Your task to perform on an android device: Open display settings Image 0: 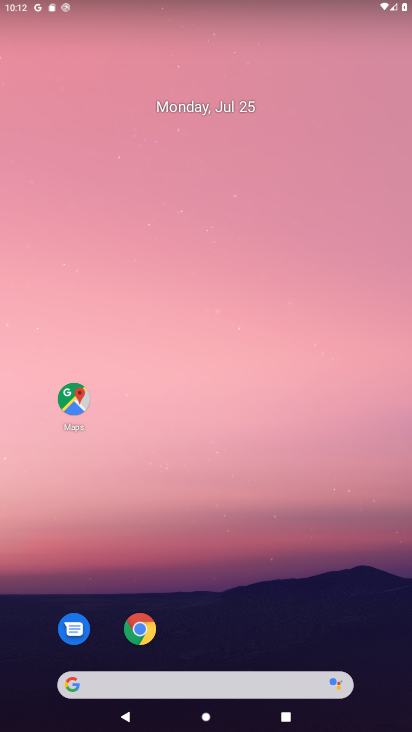
Step 0: drag from (244, 630) to (265, 95)
Your task to perform on an android device: Open display settings Image 1: 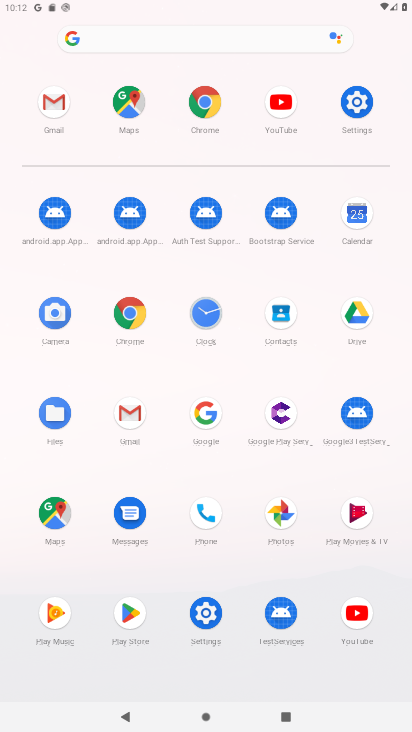
Step 1: click (353, 112)
Your task to perform on an android device: Open display settings Image 2: 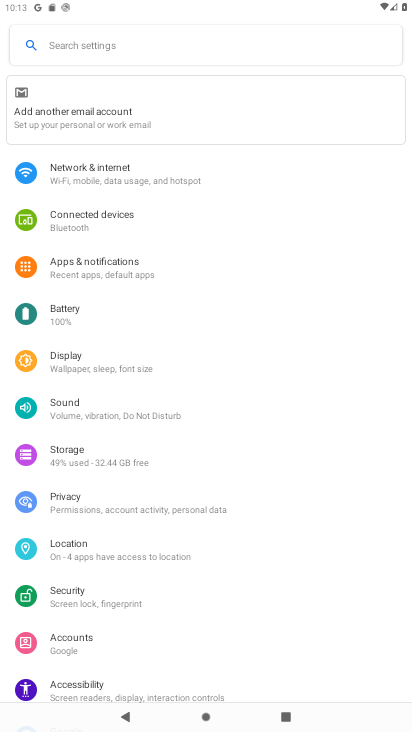
Step 2: click (79, 370)
Your task to perform on an android device: Open display settings Image 3: 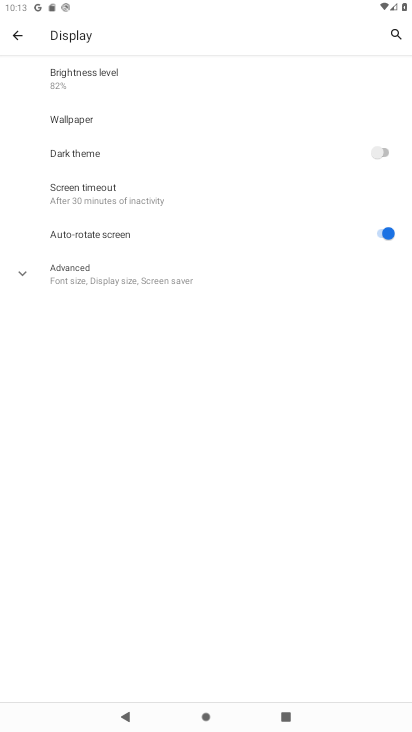
Step 3: task complete